Your task to perform on an android device: Go to notification settings Image 0: 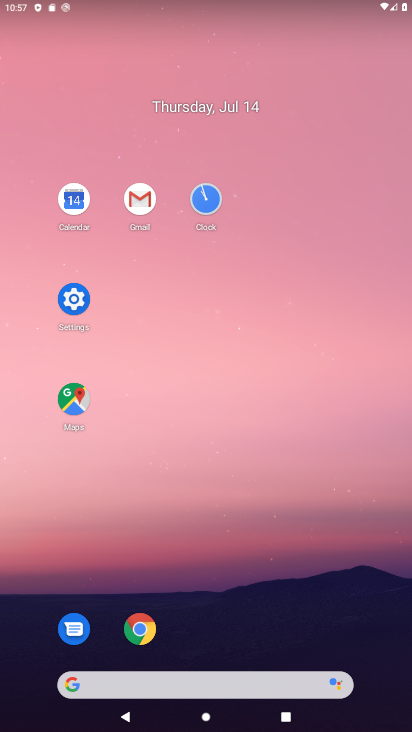
Step 0: click (62, 299)
Your task to perform on an android device: Go to notification settings Image 1: 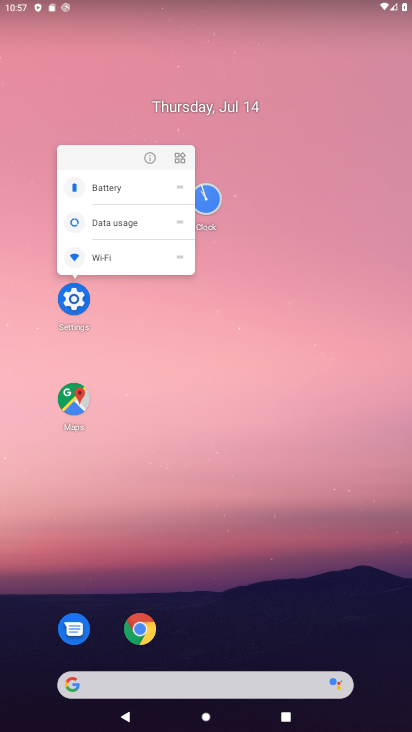
Step 1: click (62, 299)
Your task to perform on an android device: Go to notification settings Image 2: 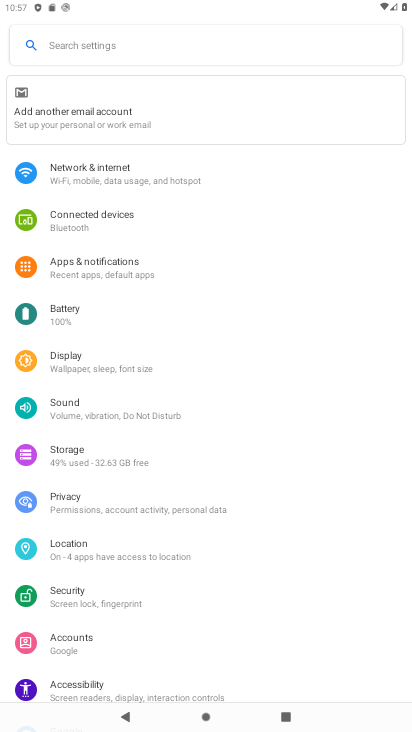
Step 2: click (144, 270)
Your task to perform on an android device: Go to notification settings Image 3: 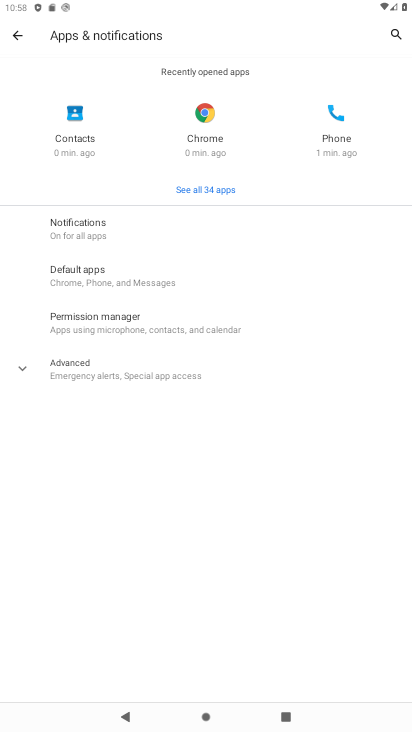
Step 3: task complete